Your task to perform on an android device: find which apps use the phone's location Image 0: 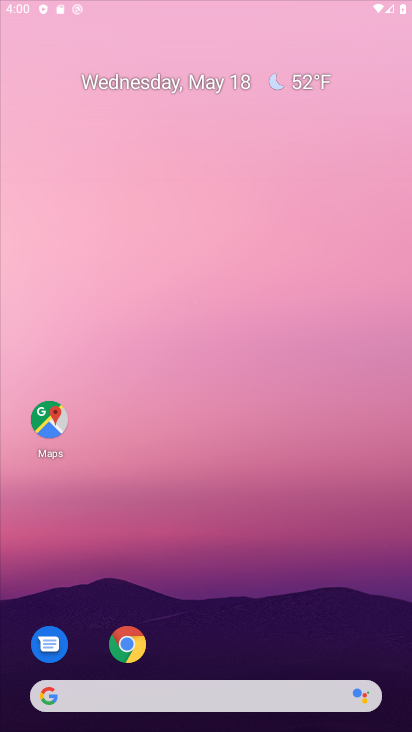
Step 0: click (155, 76)
Your task to perform on an android device: find which apps use the phone's location Image 1: 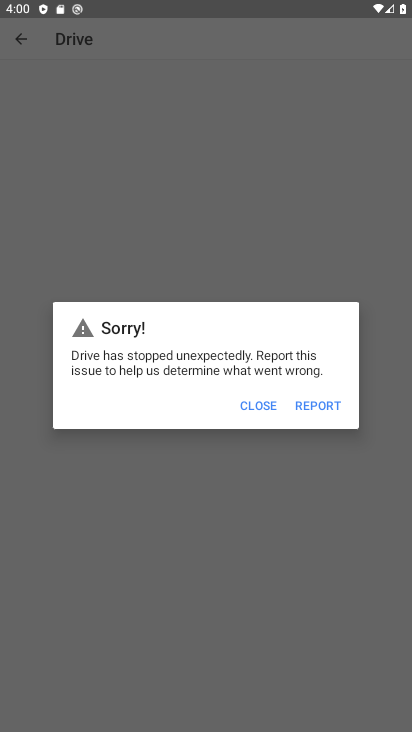
Step 1: press home button
Your task to perform on an android device: find which apps use the phone's location Image 2: 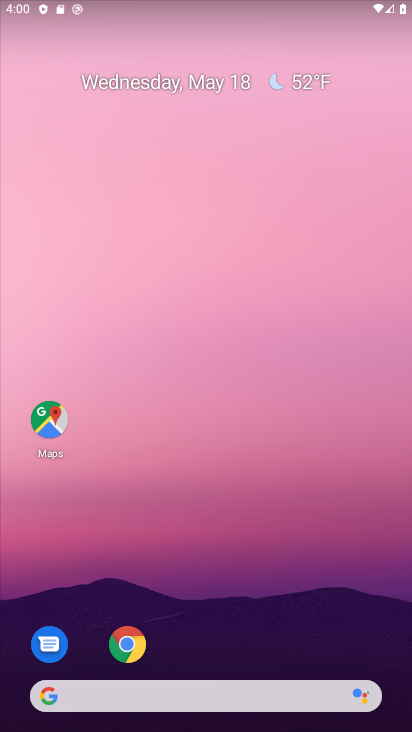
Step 2: drag from (194, 666) to (335, 40)
Your task to perform on an android device: find which apps use the phone's location Image 3: 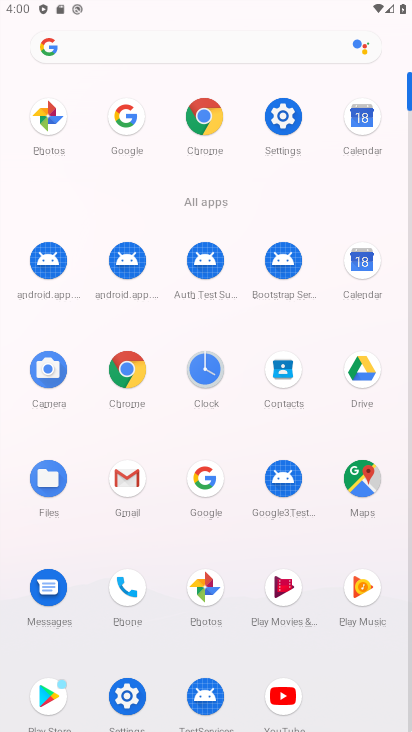
Step 3: click (287, 125)
Your task to perform on an android device: find which apps use the phone's location Image 4: 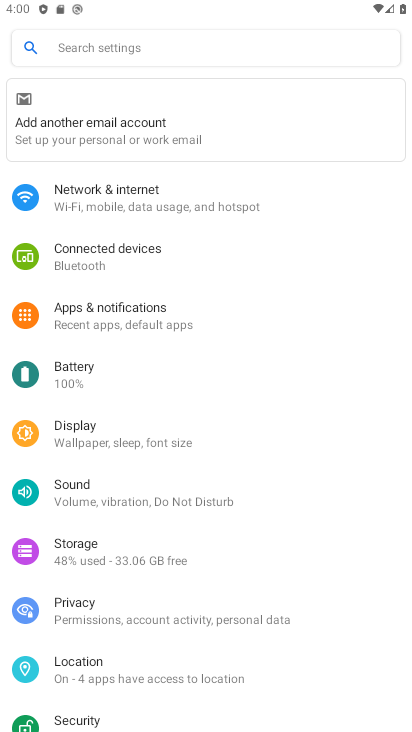
Step 4: click (94, 311)
Your task to perform on an android device: find which apps use the phone's location Image 5: 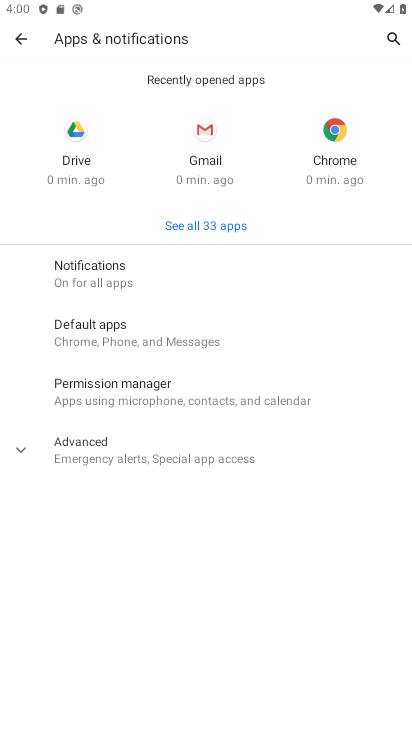
Step 5: click (99, 340)
Your task to perform on an android device: find which apps use the phone's location Image 6: 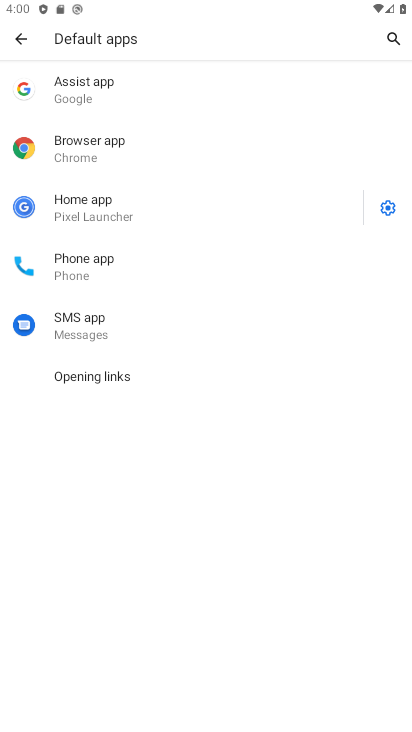
Step 6: task complete